Your task to perform on an android device: See recent photos Image 0: 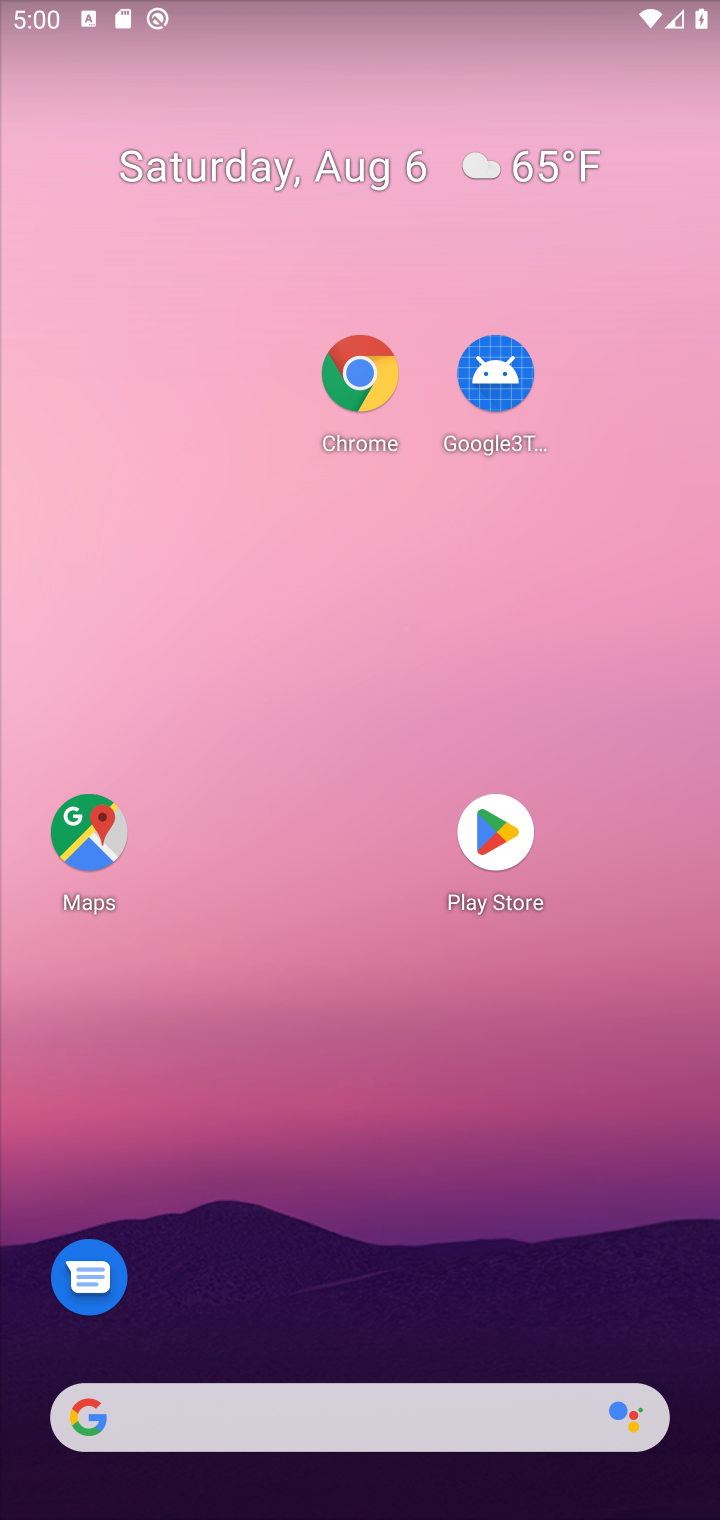
Step 0: drag from (510, 1418) to (537, 91)
Your task to perform on an android device: See recent photos Image 1: 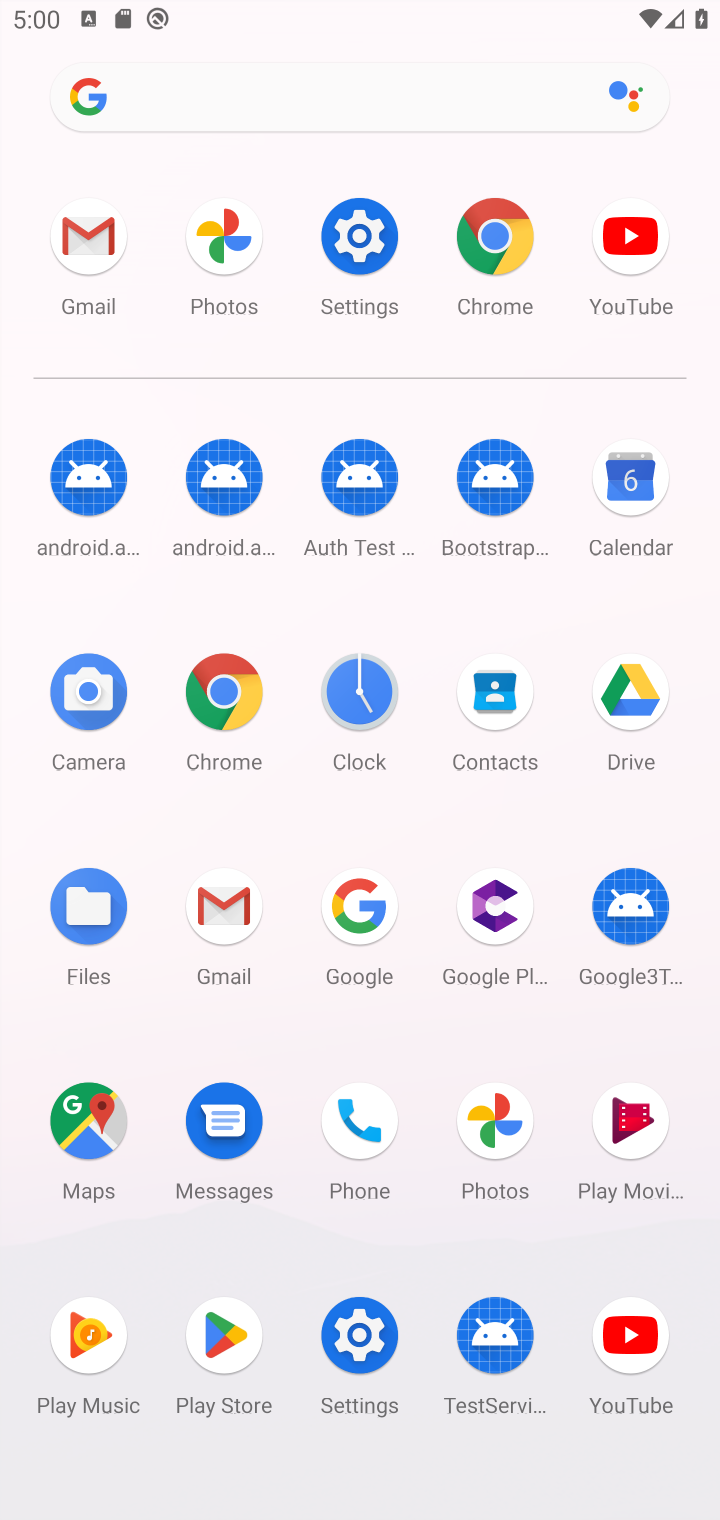
Step 1: click (473, 1118)
Your task to perform on an android device: See recent photos Image 2: 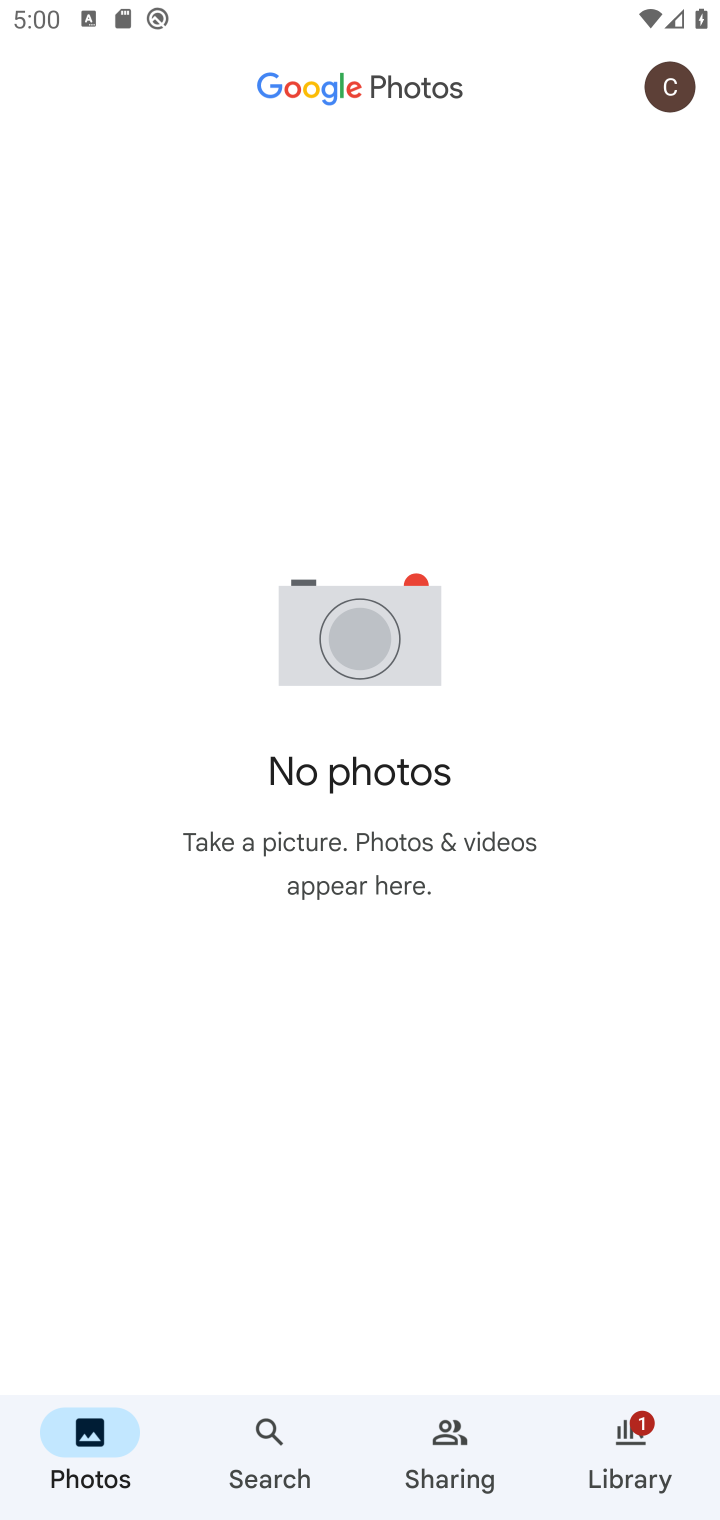
Step 2: task complete